Your task to perform on an android device: Search for vegetarian restaurants on Maps Image 0: 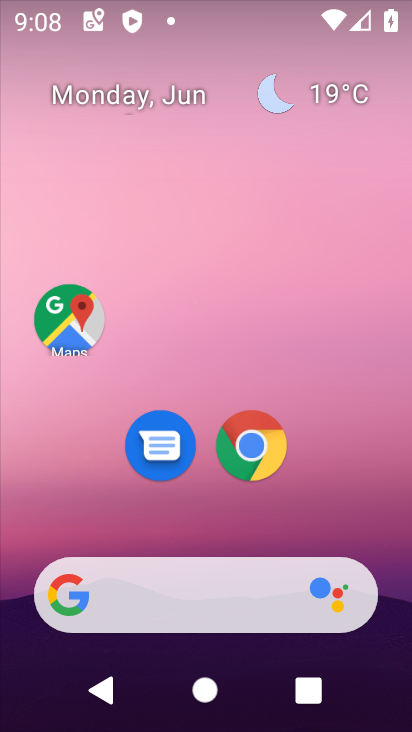
Step 0: click (72, 314)
Your task to perform on an android device: Search for vegetarian restaurants on Maps Image 1: 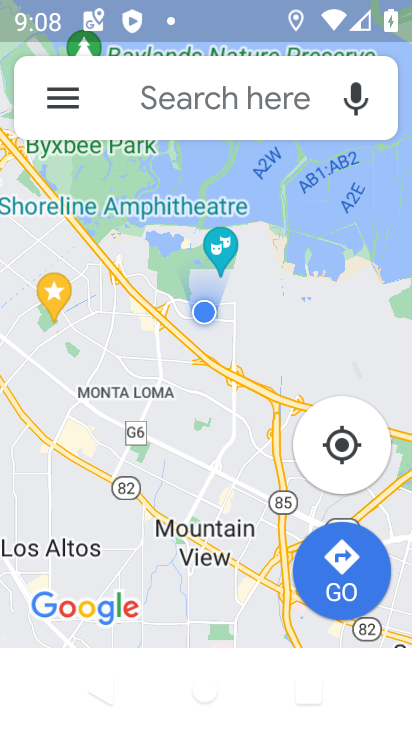
Step 1: click (162, 98)
Your task to perform on an android device: Search for vegetarian restaurants on Maps Image 2: 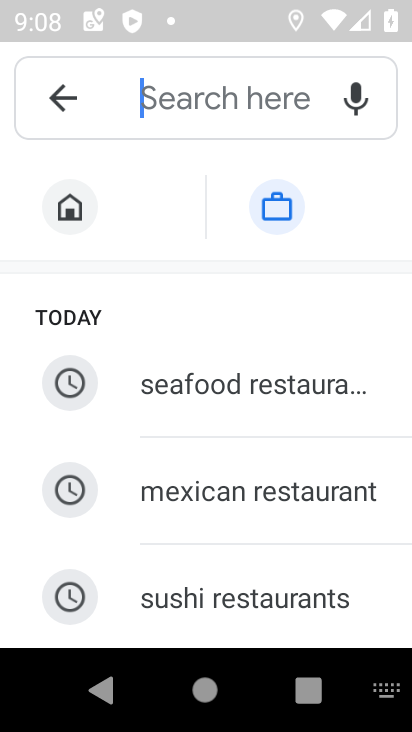
Step 2: drag from (223, 541) to (215, 261)
Your task to perform on an android device: Search for vegetarian restaurants on Maps Image 3: 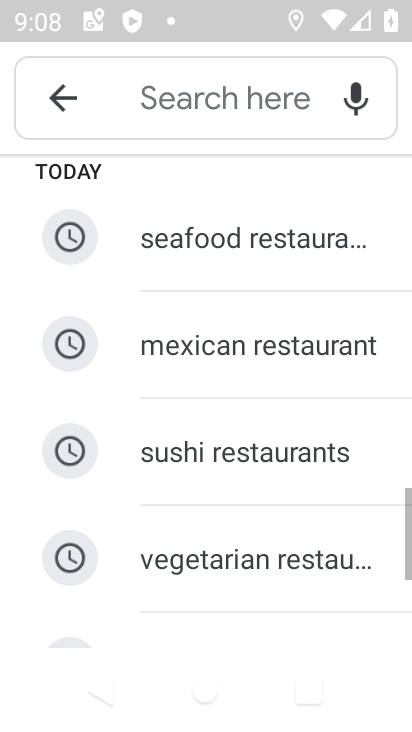
Step 3: click (215, 178)
Your task to perform on an android device: Search for vegetarian restaurants on Maps Image 4: 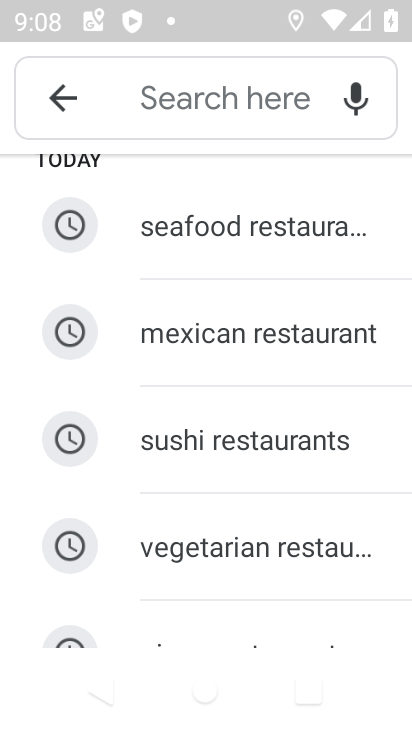
Step 4: click (122, 546)
Your task to perform on an android device: Search for vegetarian restaurants on Maps Image 5: 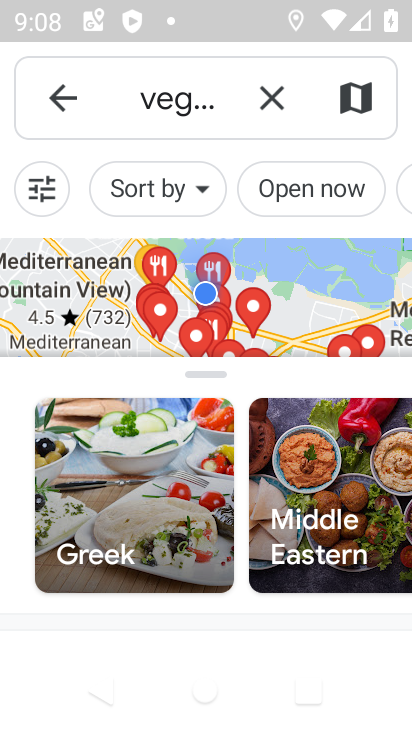
Step 5: task complete